Your task to perform on an android device: What's the weather like inToronto? Image 0: 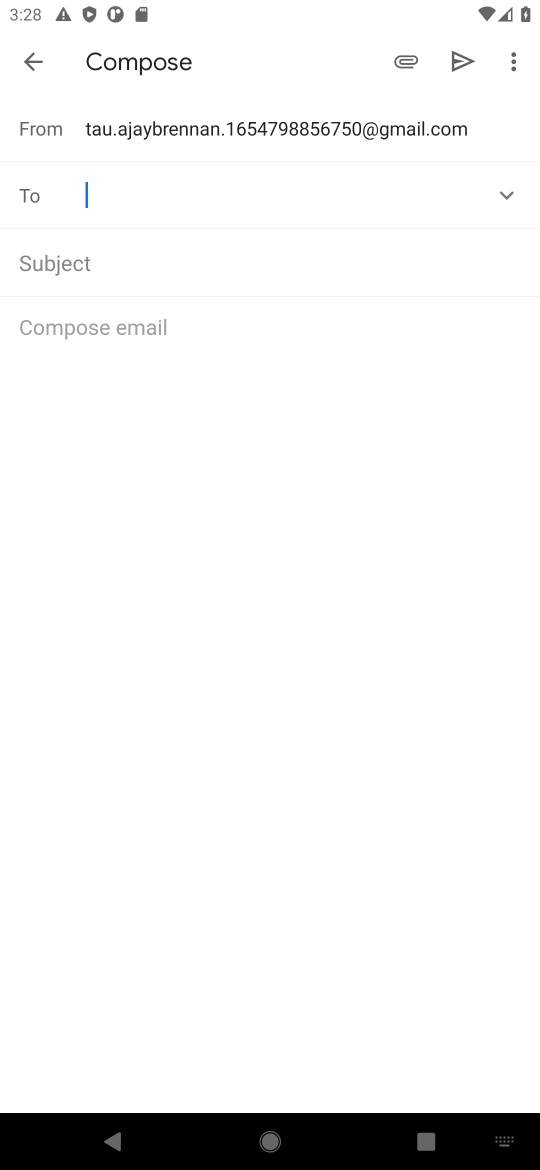
Step 0: press home button
Your task to perform on an android device: What's the weather like inToronto? Image 1: 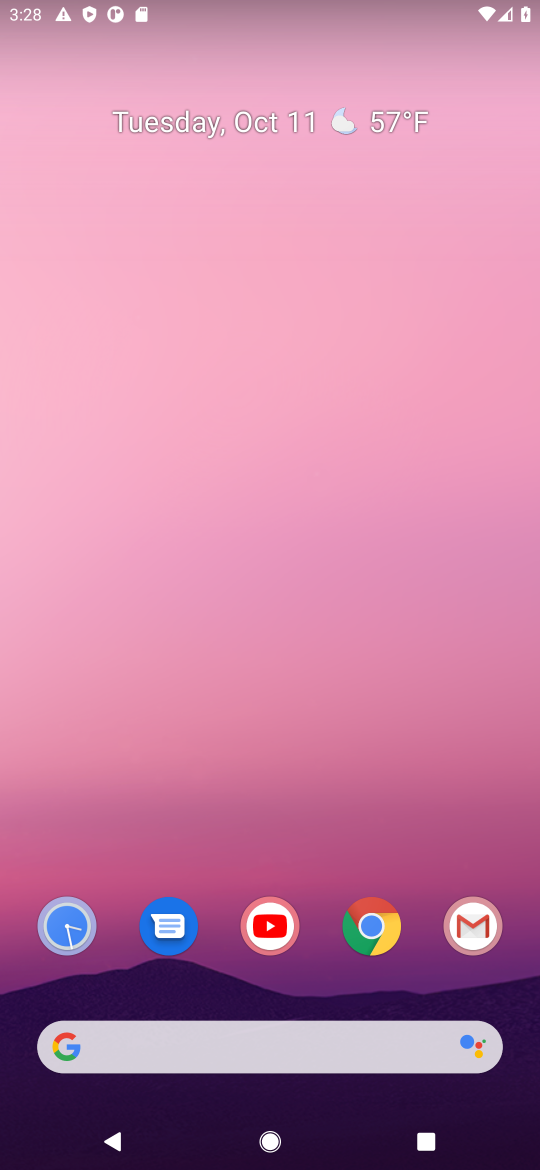
Step 1: click (228, 1039)
Your task to perform on an android device: What's the weather like inToronto? Image 2: 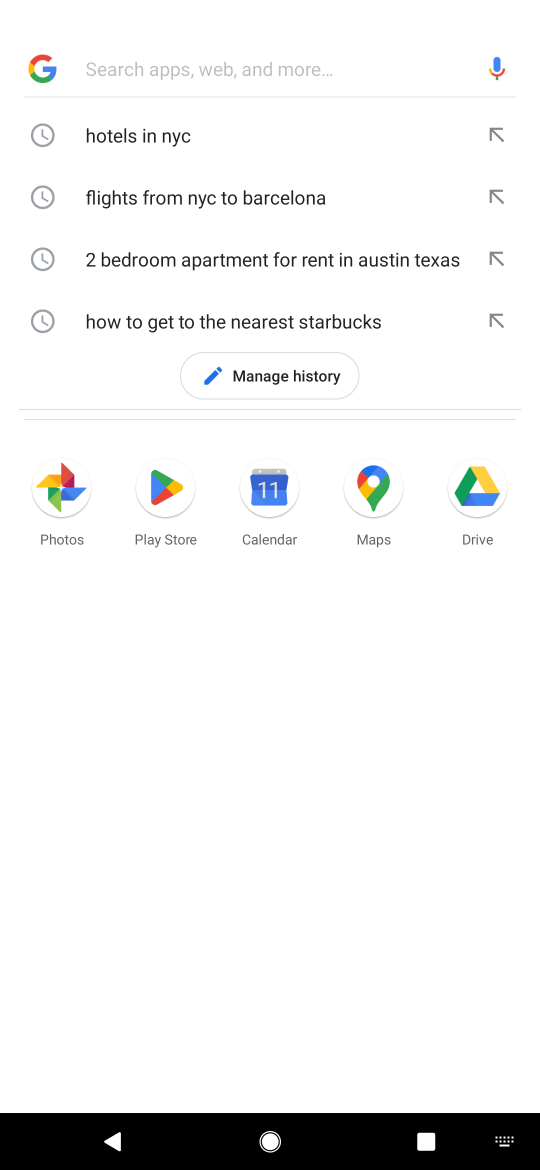
Step 2: type "weather like inToronto"
Your task to perform on an android device: What's the weather like inToronto? Image 3: 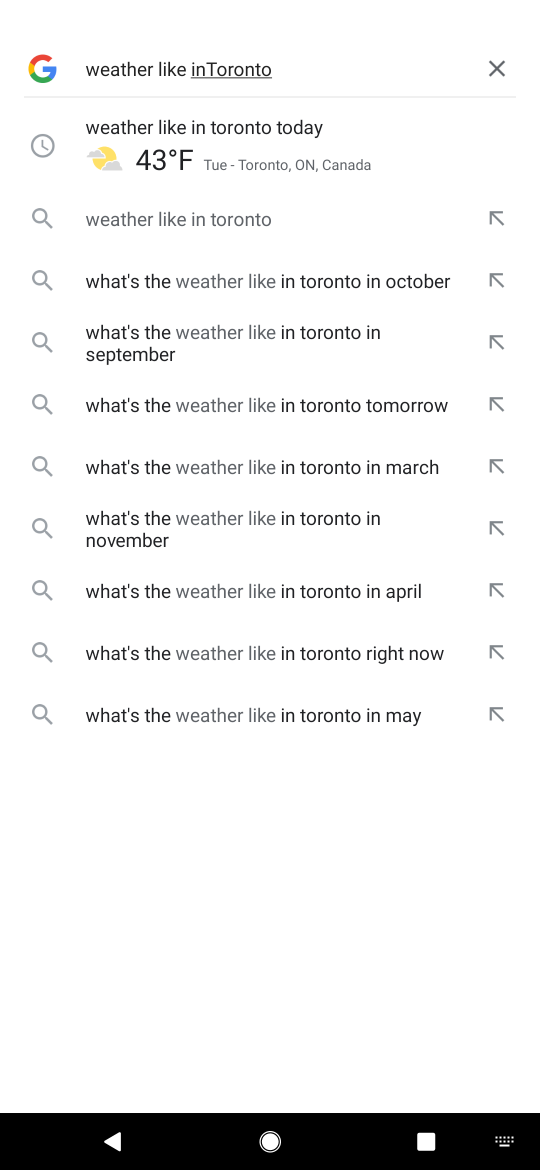
Step 3: type ""
Your task to perform on an android device: What's the weather like inToronto? Image 4: 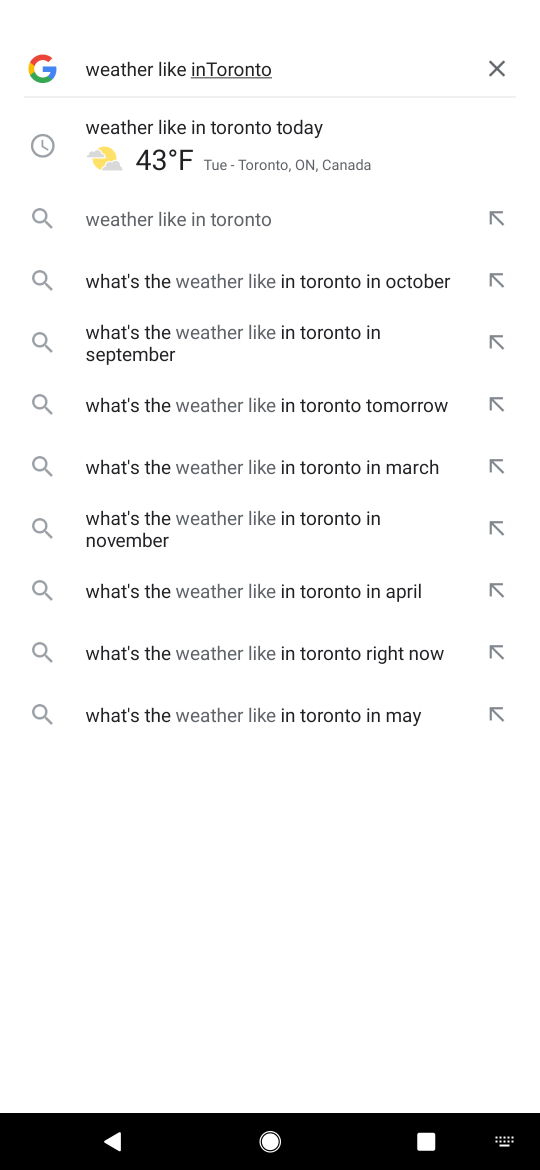
Step 4: click (375, 146)
Your task to perform on an android device: What's the weather like inToronto? Image 5: 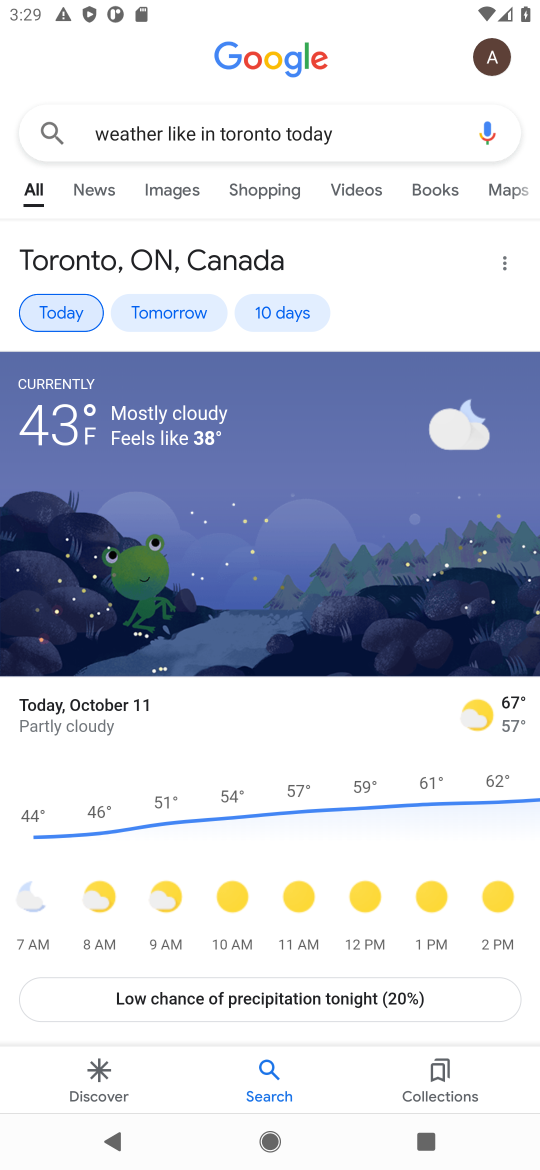
Step 5: task complete